Your task to perform on an android device: Open Youtube and go to "Your channel" Image 0: 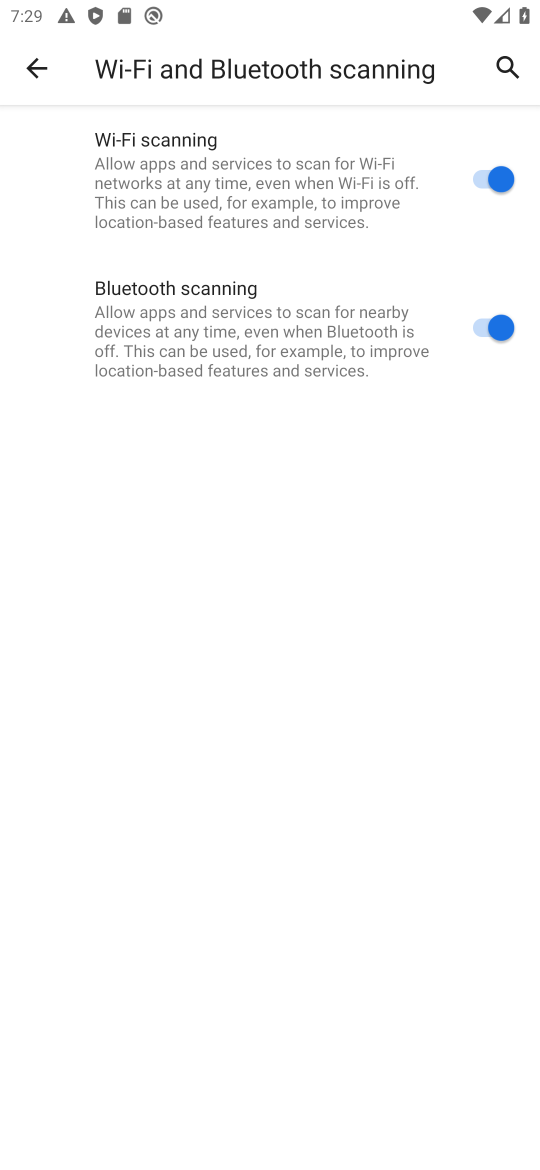
Step 0: press home button
Your task to perform on an android device: Open Youtube and go to "Your channel" Image 1: 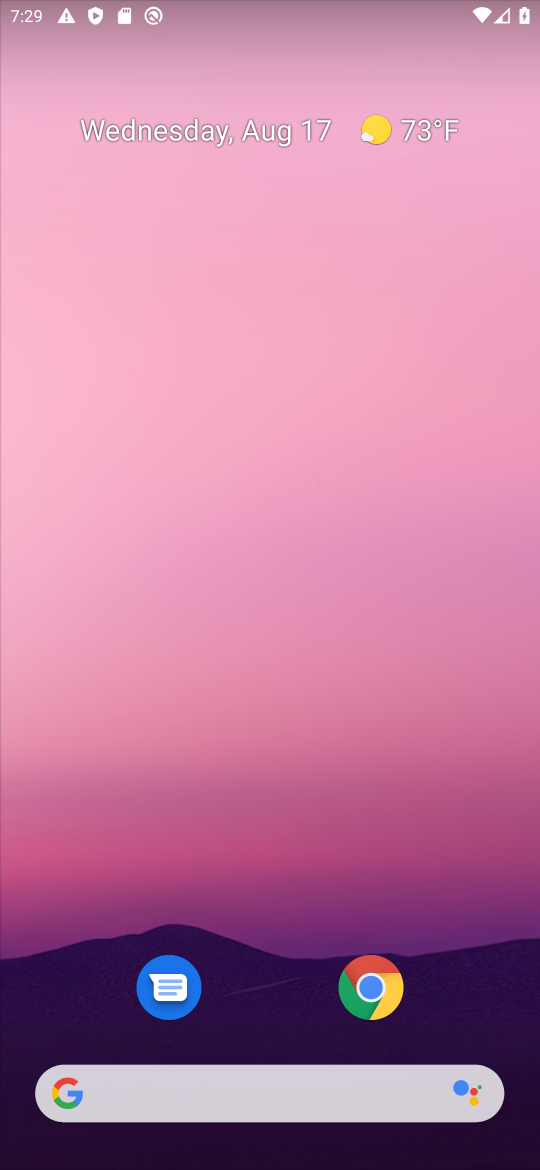
Step 1: drag from (474, 897) to (107, 87)
Your task to perform on an android device: Open Youtube and go to "Your channel" Image 2: 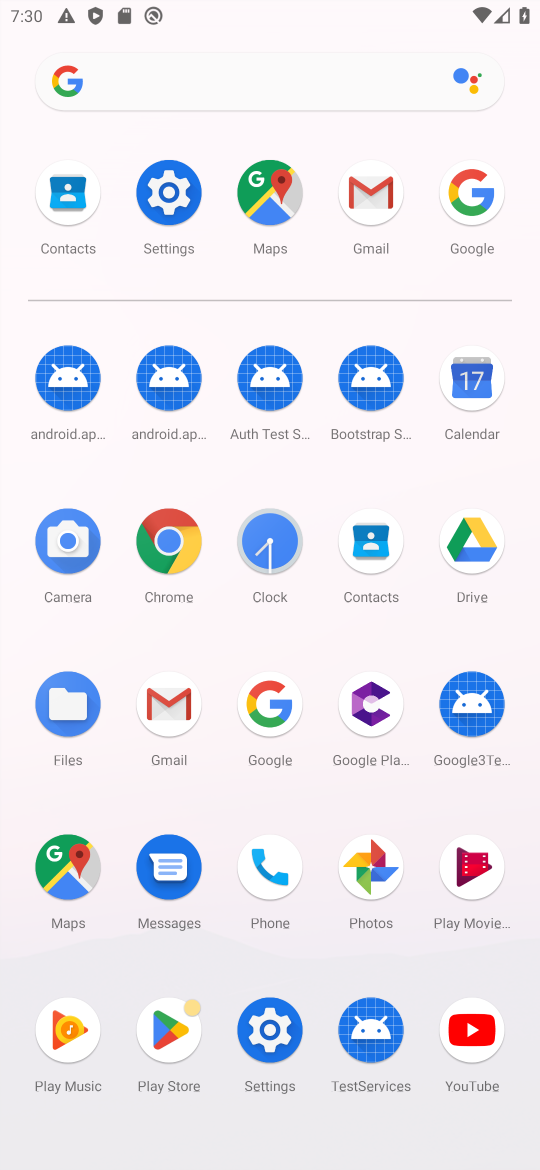
Step 2: click (472, 1024)
Your task to perform on an android device: Open Youtube and go to "Your channel" Image 3: 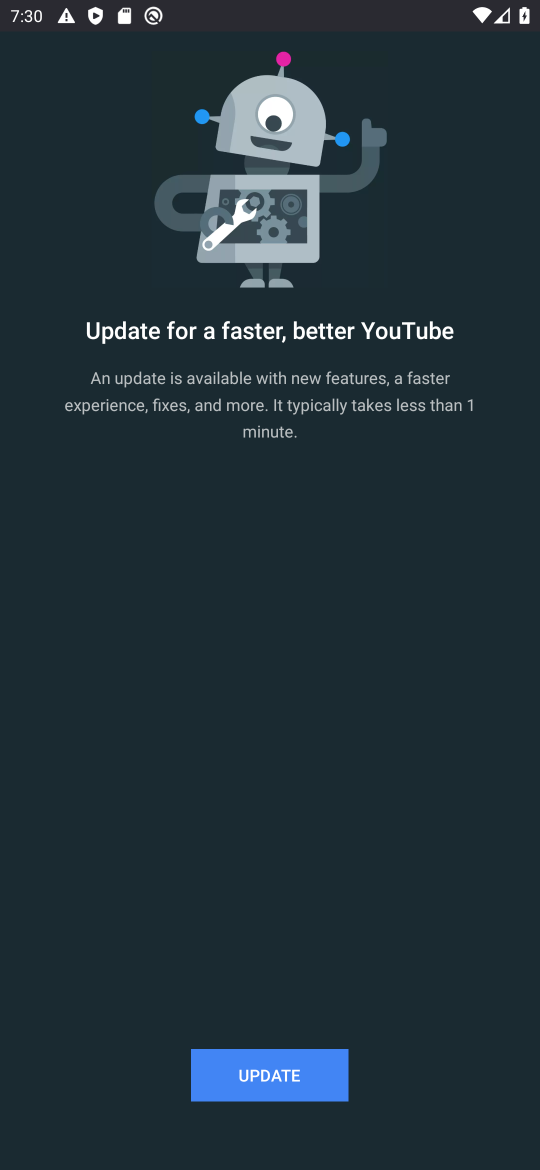
Step 3: task complete